Your task to perform on an android device: change notifications settings Image 0: 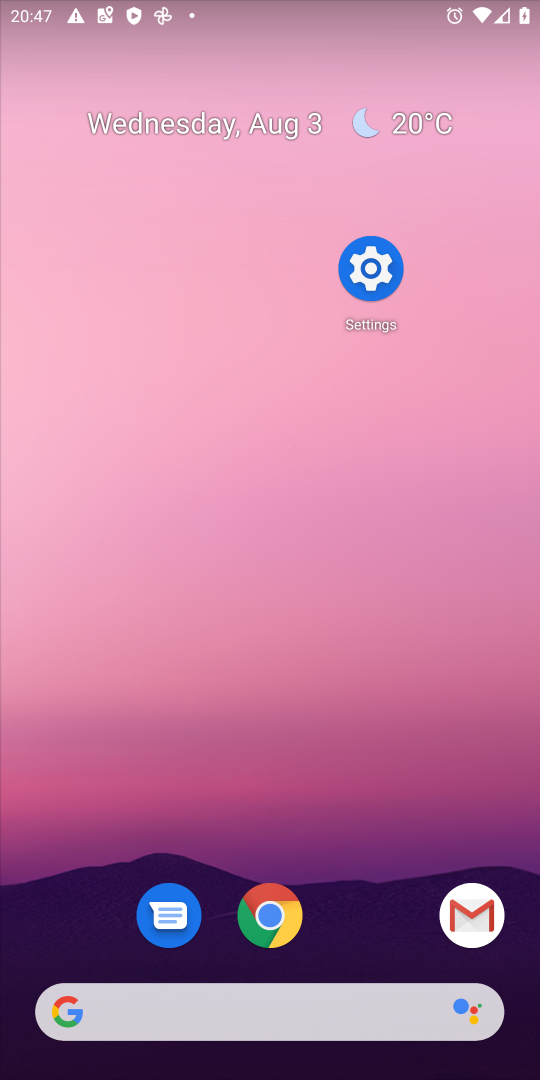
Step 0: press home button
Your task to perform on an android device: change notifications settings Image 1: 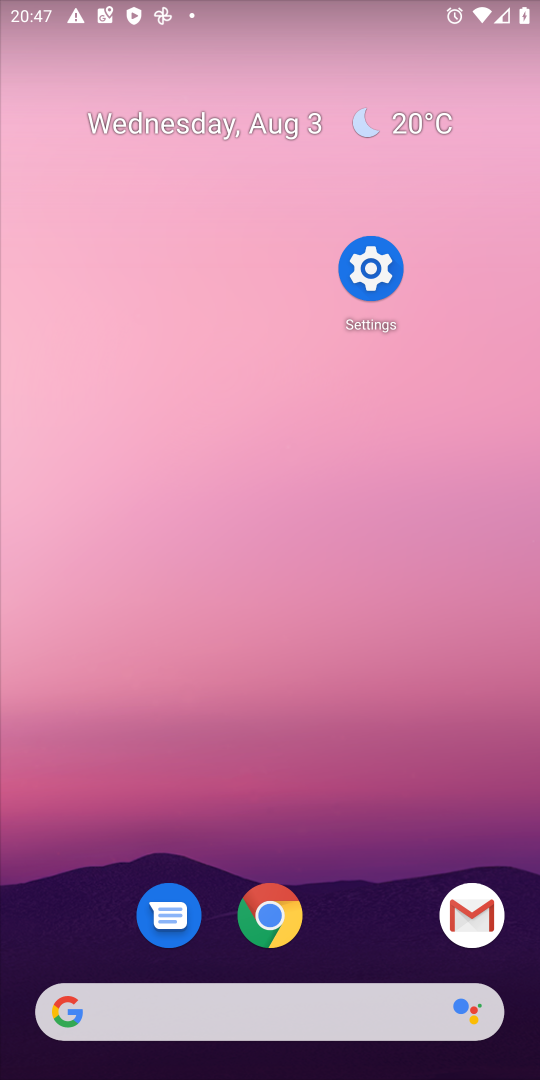
Step 1: drag from (363, 1046) to (203, 153)
Your task to perform on an android device: change notifications settings Image 2: 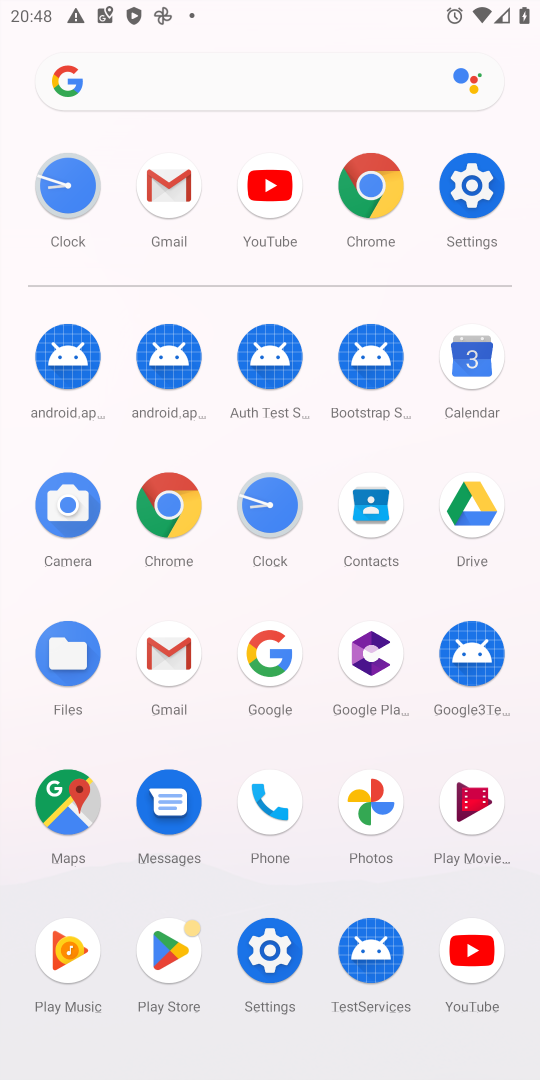
Step 2: click (462, 179)
Your task to perform on an android device: change notifications settings Image 3: 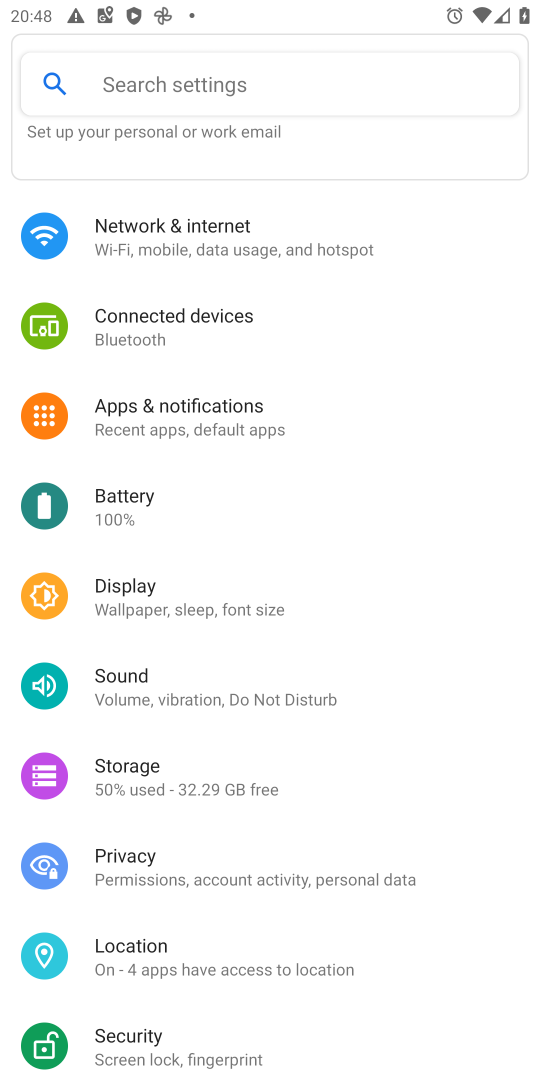
Step 3: click (207, 78)
Your task to perform on an android device: change notifications settings Image 4: 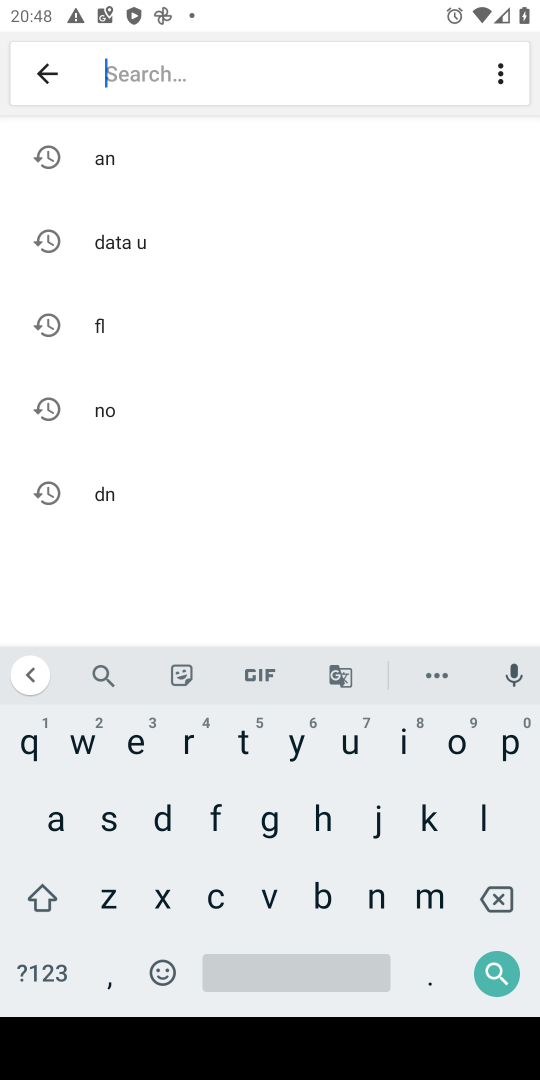
Step 4: click (387, 901)
Your task to perform on an android device: change notifications settings Image 5: 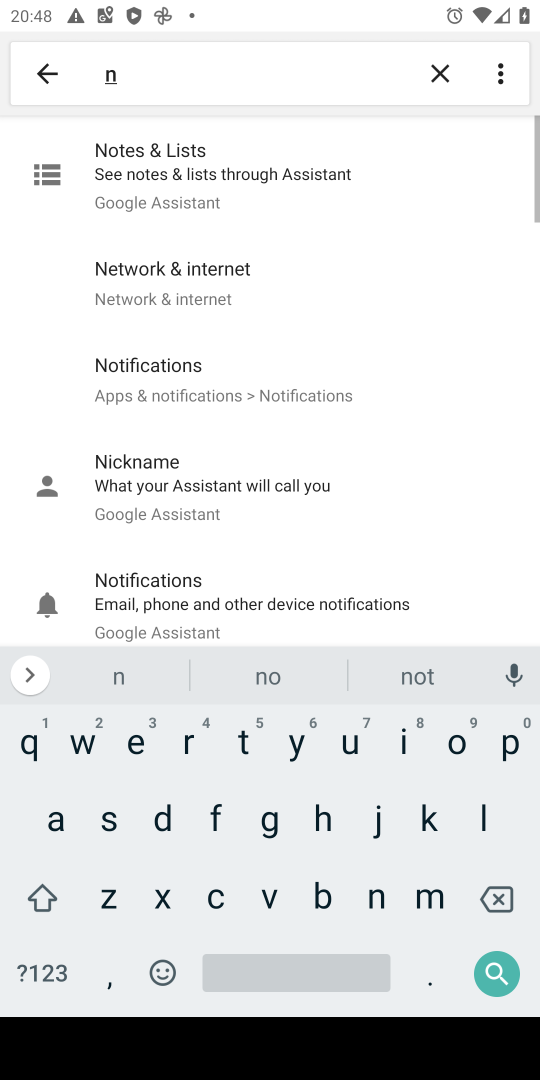
Step 5: click (453, 743)
Your task to perform on an android device: change notifications settings Image 6: 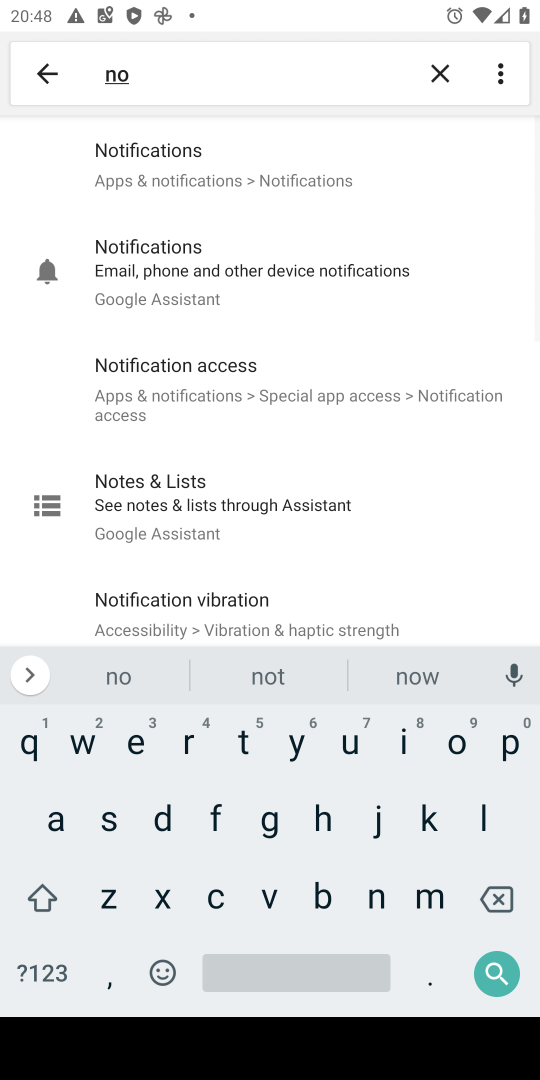
Step 6: click (235, 170)
Your task to perform on an android device: change notifications settings Image 7: 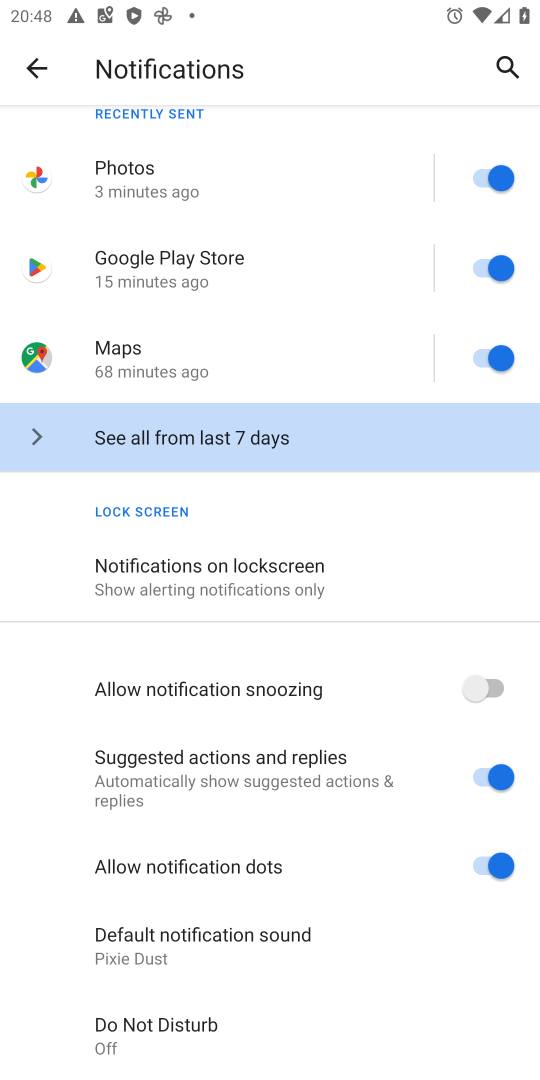
Step 7: click (231, 559)
Your task to perform on an android device: change notifications settings Image 8: 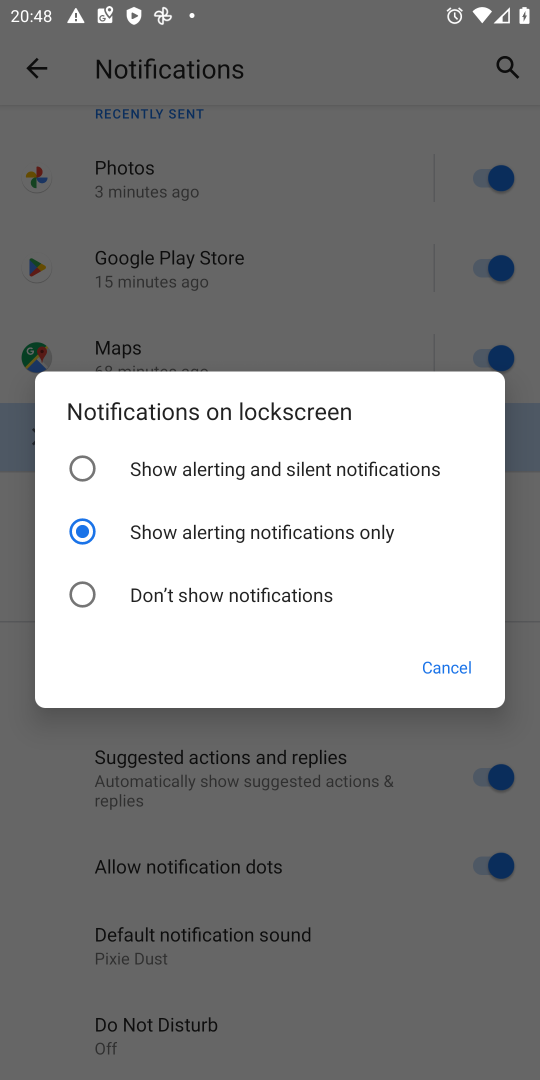
Step 8: click (243, 469)
Your task to perform on an android device: change notifications settings Image 9: 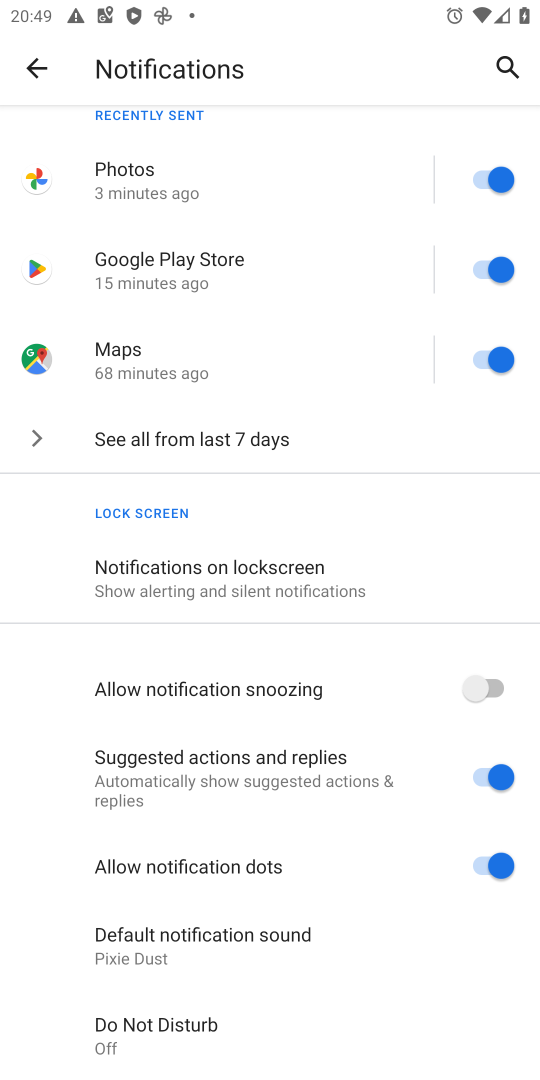
Step 9: task complete